Your task to perform on an android device: Go to Google maps Image 0: 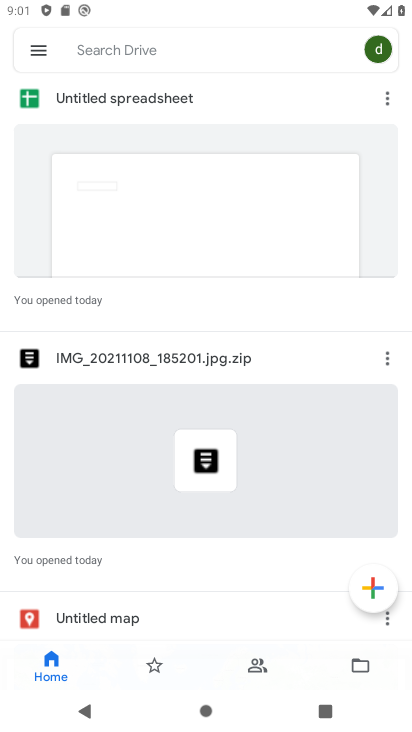
Step 0: press home button
Your task to perform on an android device: Go to Google maps Image 1: 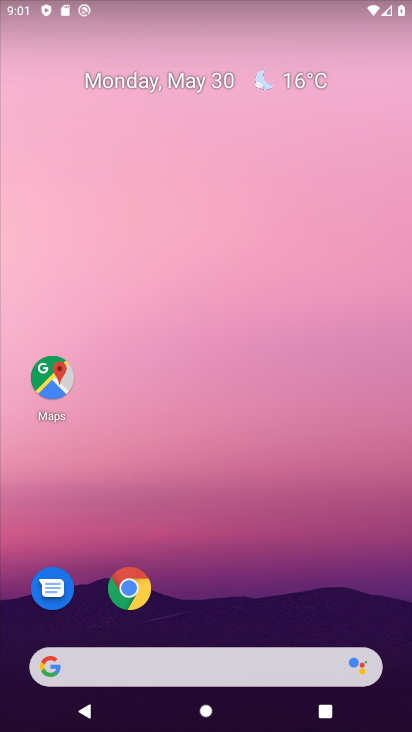
Step 1: click (46, 400)
Your task to perform on an android device: Go to Google maps Image 2: 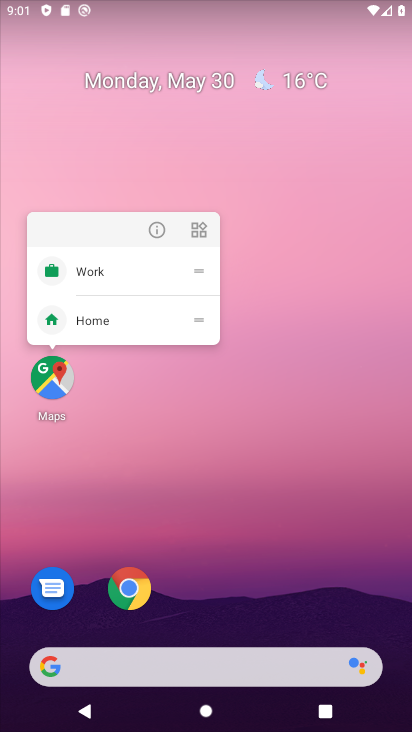
Step 2: click (62, 382)
Your task to perform on an android device: Go to Google maps Image 3: 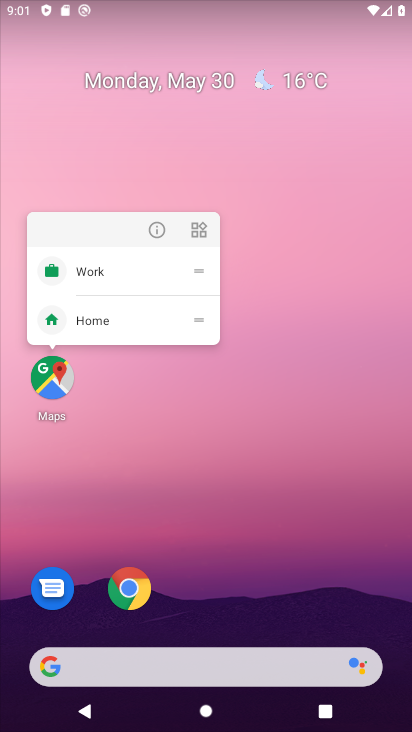
Step 3: click (58, 377)
Your task to perform on an android device: Go to Google maps Image 4: 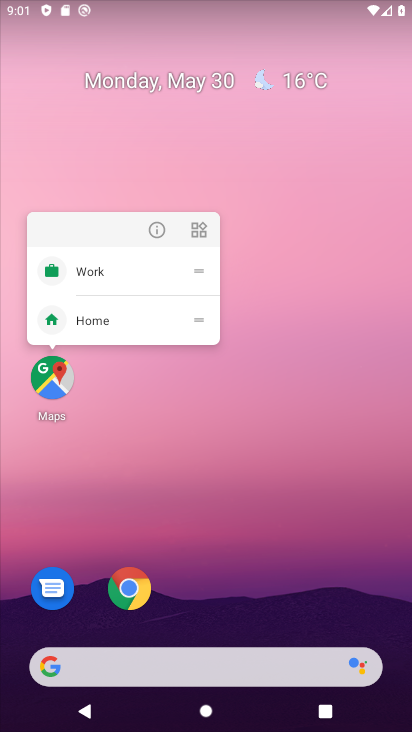
Step 4: click (57, 377)
Your task to perform on an android device: Go to Google maps Image 5: 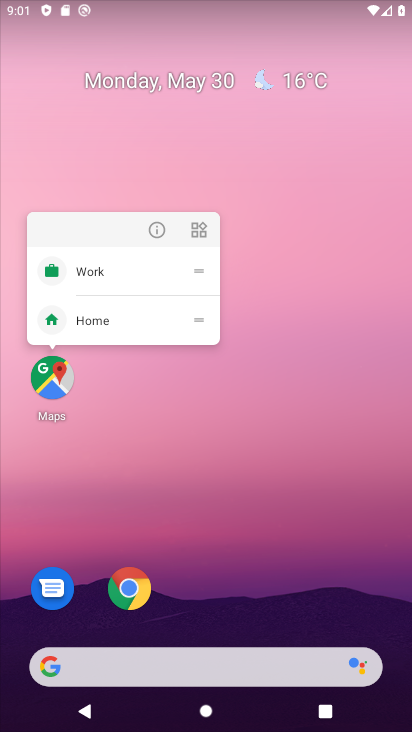
Step 5: click (47, 374)
Your task to perform on an android device: Go to Google maps Image 6: 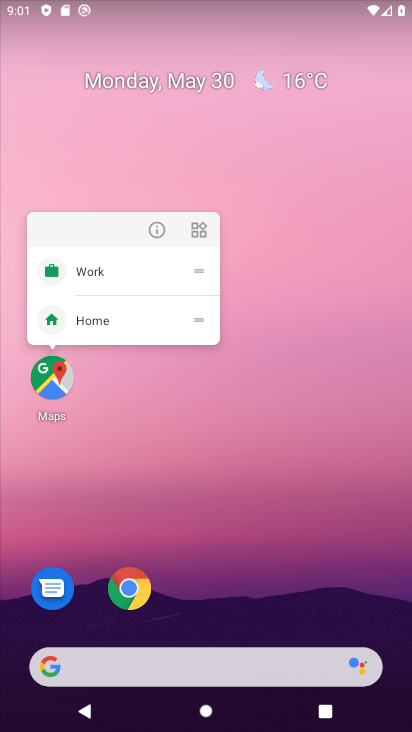
Step 6: click (50, 379)
Your task to perform on an android device: Go to Google maps Image 7: 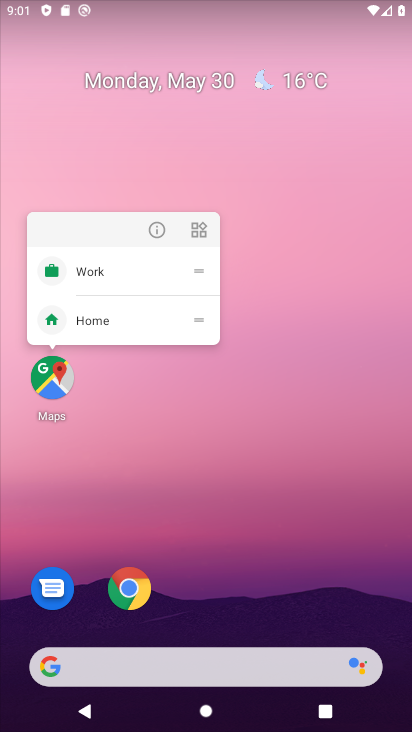
Step 7: click (62, 394)
Your task to perform on an android device: Go to Google maps Image 8: 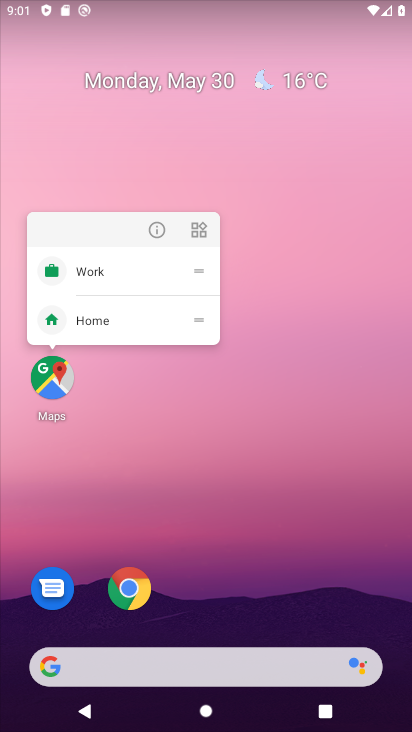
Step 8: click (54, 384)
Your task to perform on an android device: Go to Google maps Image 9: 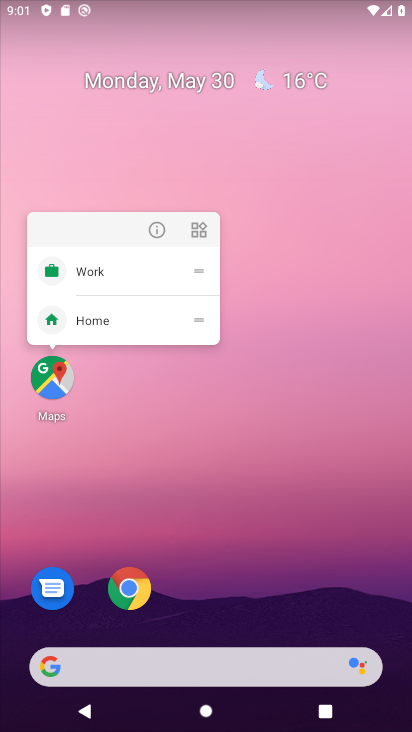
Step 9: click (54, 382)
Your task to perform on an android device: Go to Google maps Image 10: 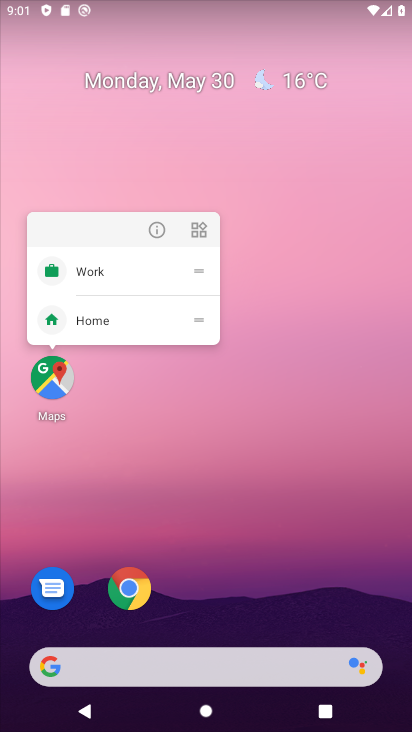
Step 10: click (54, 374)
Your task to perform on an android device: Go to Google maps Image 11: 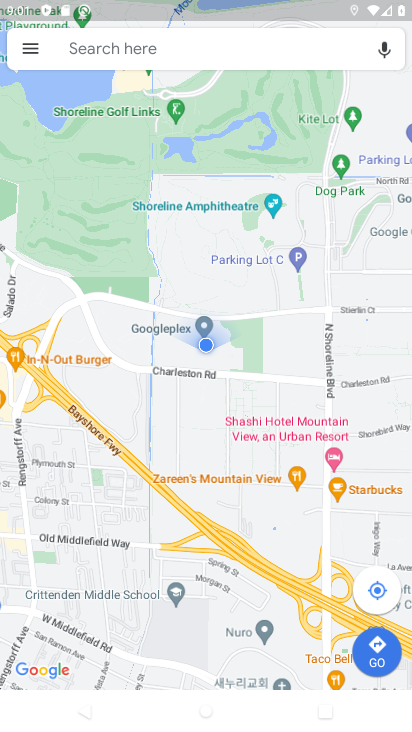
Step 11: task complete